Your task to perform on an android device: Open eBay Image 0: 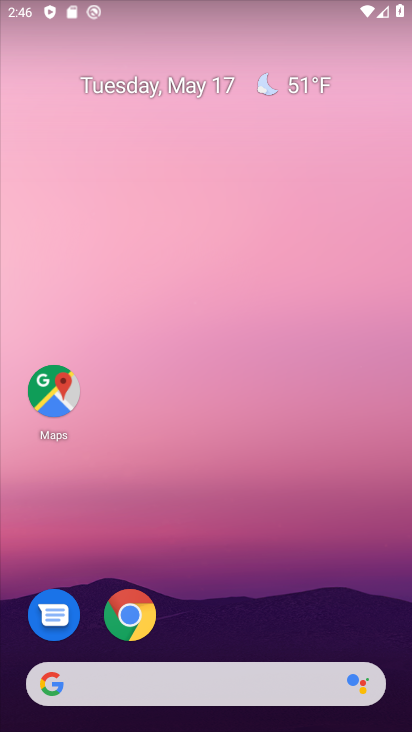
Step 0: press home button
Your task to perform on an android device: Open eBay Image 1: 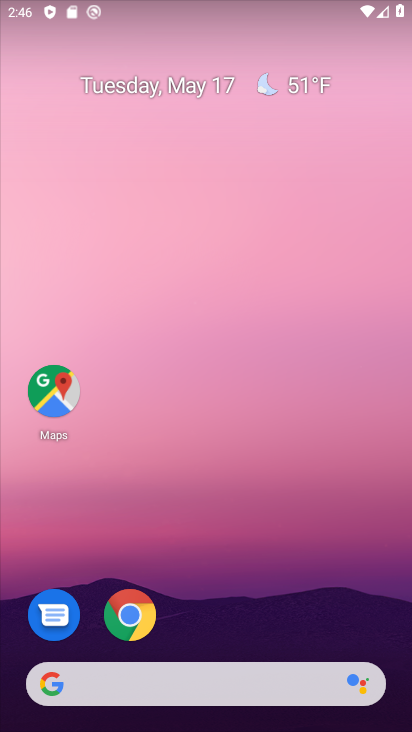
Step 1: click (113, 607)
Your task to perform on an android device: Open eBay Image 2: 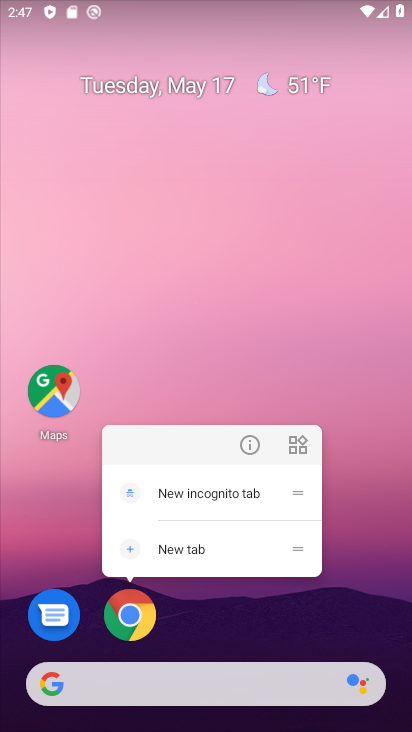
Step 2: click (130, 612)
Your task to perform on an android device: Open eBay Image 3: 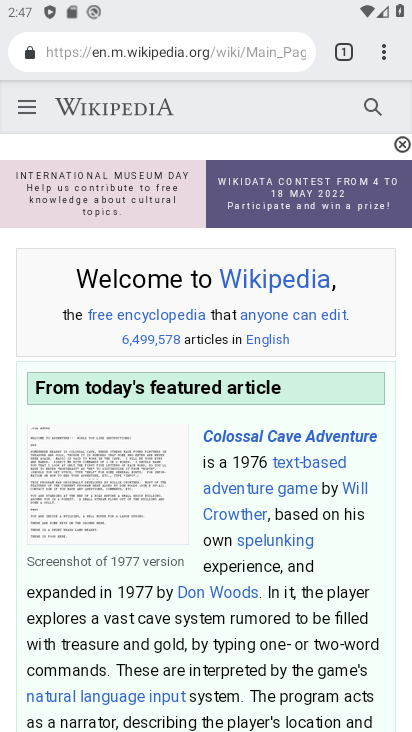
Step 3: click (388, 42)
Your task to perform on an android device: Open eBay Image 4: 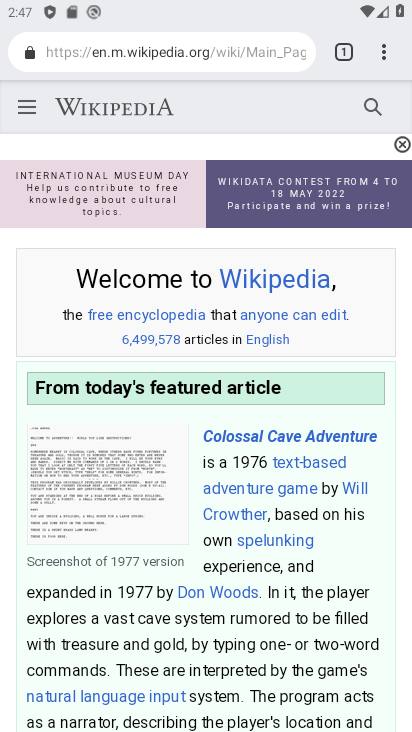
Step 4: click (343, 47)
Your task to perform on an android device: Open eBay Image 5: 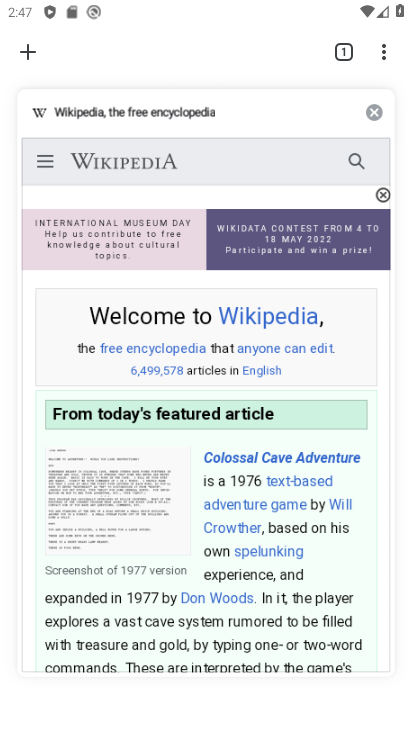
Step 5: click (372, 110)
Your task to perform on an android device: Open eBay Image 6: 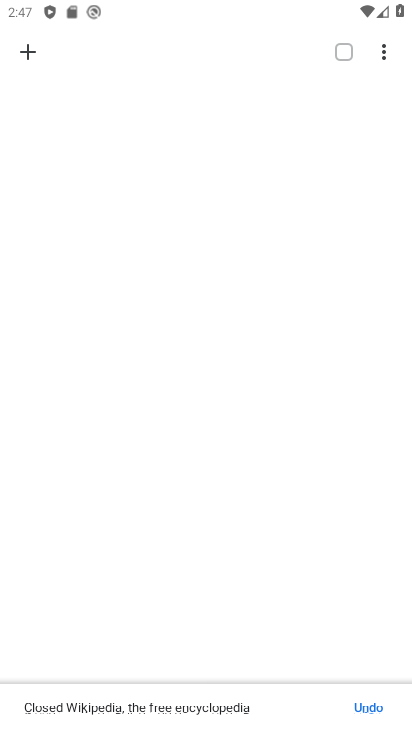
Step 6: click (35, 54)
Your task to perform on an android device: Open eBay Image 7: 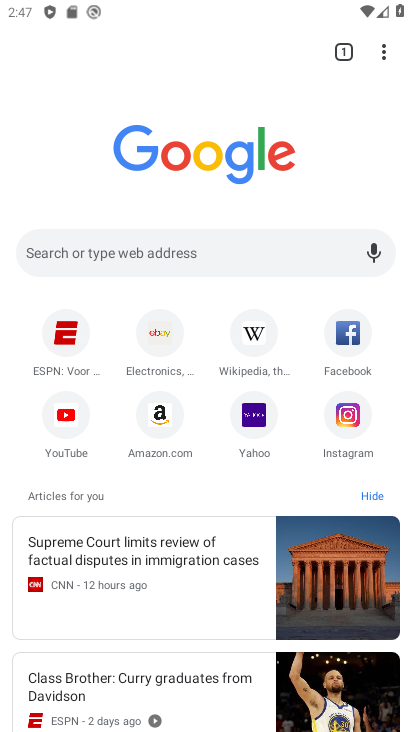
Step 7: click (163, 329)
Your task to perform on an android device: Open eBay Image 8: 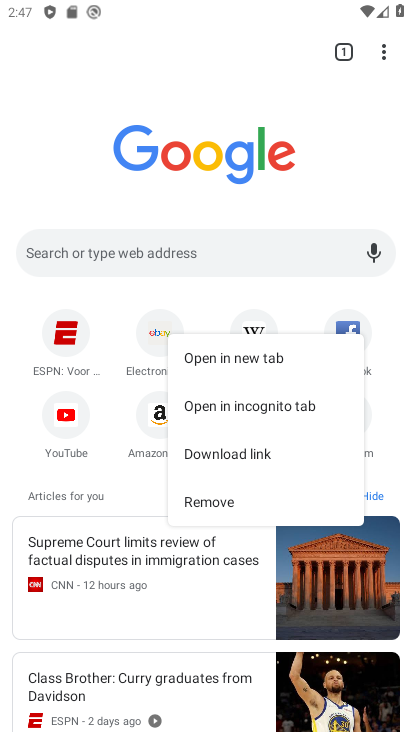
Step 8: click (155, 343)
Your task to perform on an android device: Open eBay Image 9: 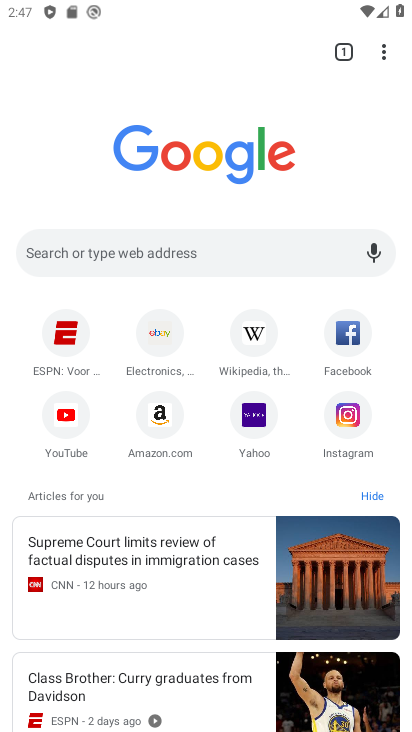
Step 9: click (156, 330)
Your task to perform on an android device: Open eBay Image 10: 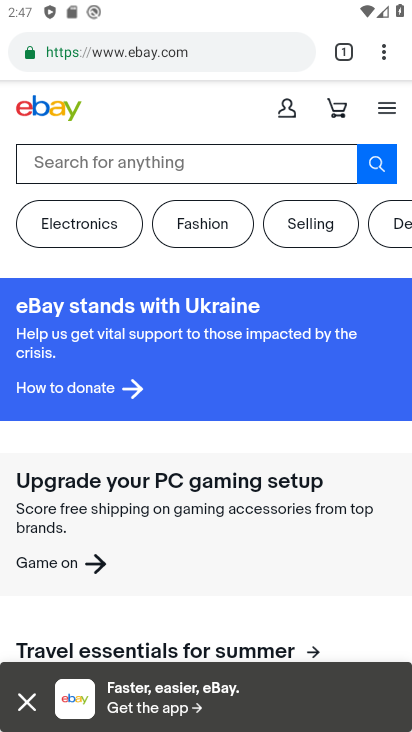
Step 10: task complete